Your task to perform on an android device: toggle data saver in the chrome app Image 0: 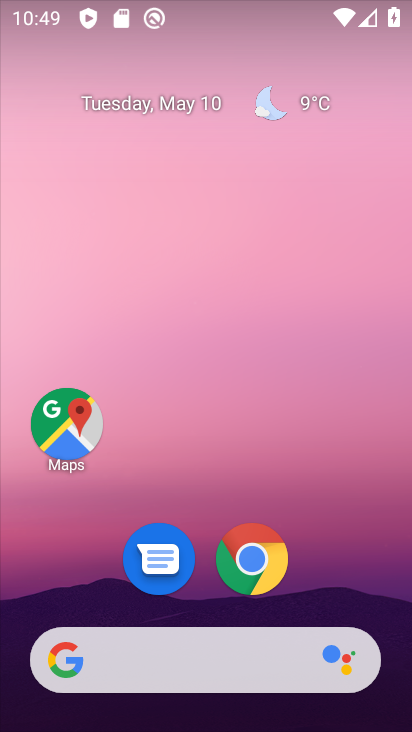
Step 0: press home button
Your task to perform on an android device: toggle data saver in the chrome app Image 1: 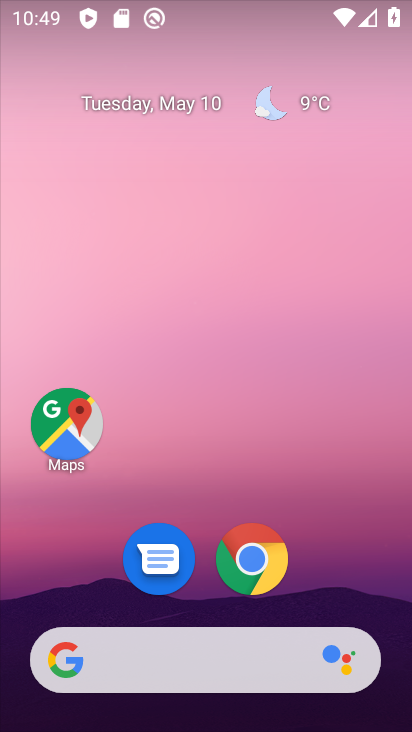
Step 1: click (261, 565)
Your task to perform on an android device: toggle data saver in the chrome app Image 2: 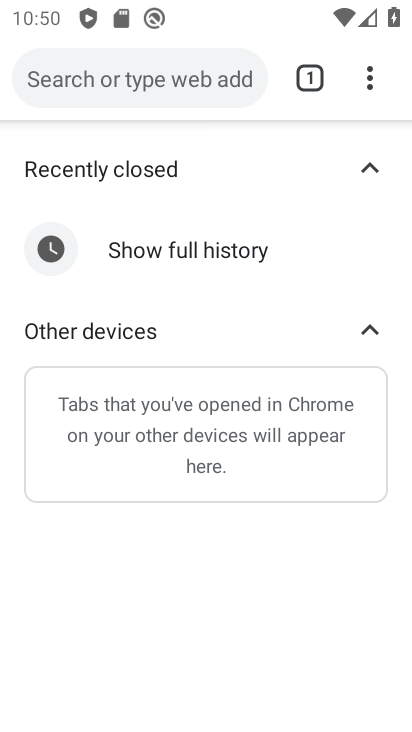
Step 2: drag from (364, 82) to (81, 653)
Your task to perform on an android device: toggle data saver in the chrome app Image 3: 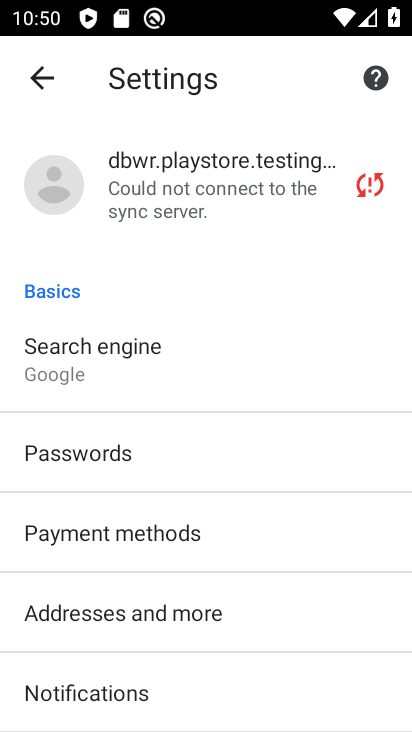
Step 3: drag from (286, 672) to (332, 3)
Your task to perform on an android device: toggle data saver in the chrome app Image 4: 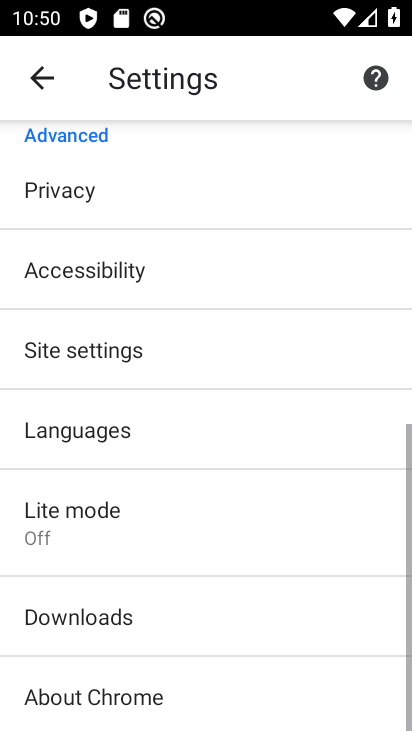
Step 4: click (203, 501)
Your task to perform on an android device: toggle data saver in the chrome app Image 5: 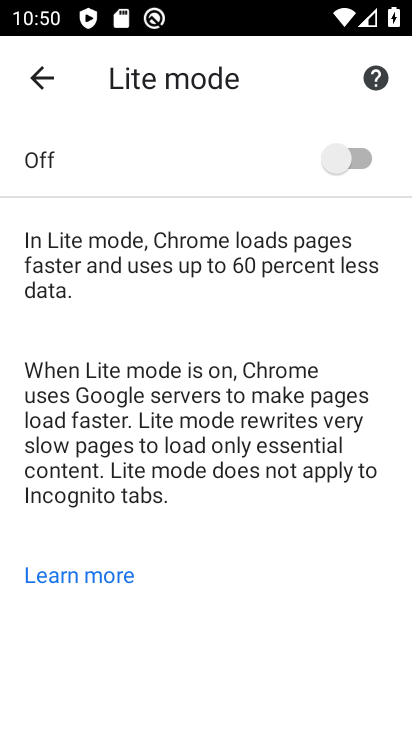
Step 5: click (364, 147)
Your task to perform on an android device: toggle data saver in the chrome app Image 6: 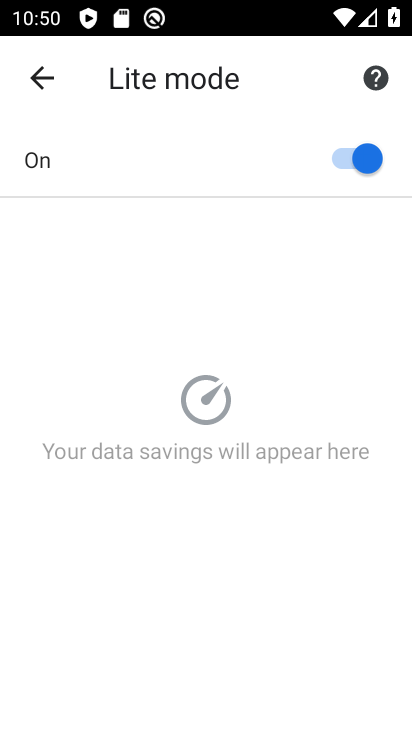
Step 6: task complete